Your task to perform on an android device: choose inbox layout in the gmail app Image 0: 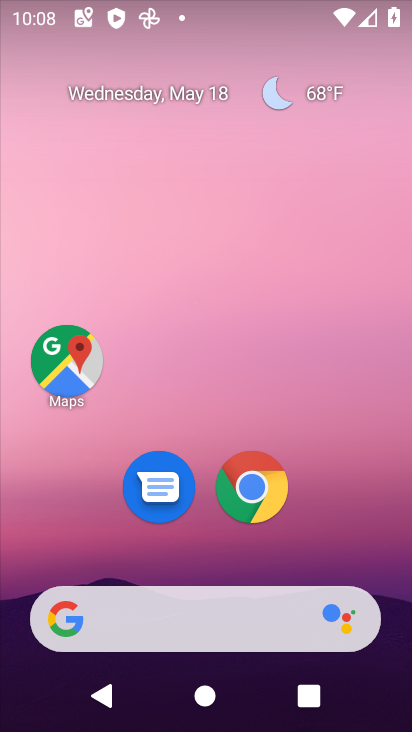
Step 0: drag from (385, 521) to (368, 168)
Your task to perform on an android device: choose inbox layout in the gmail app Image 1: 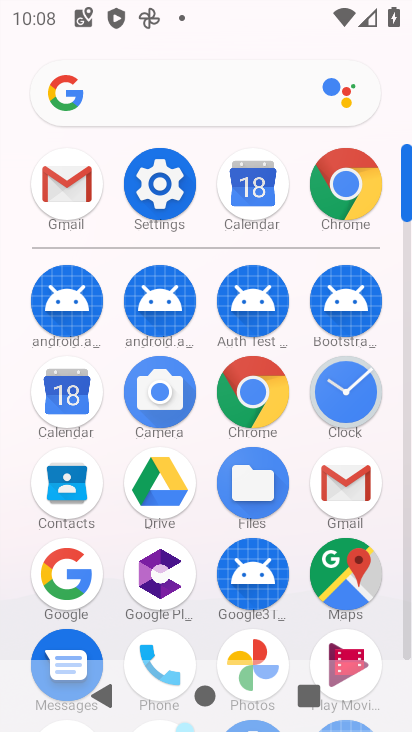
Step 1: click (337, 488)
Your task to perform on an android device: choose inbox layout in the gmail app Image 2: 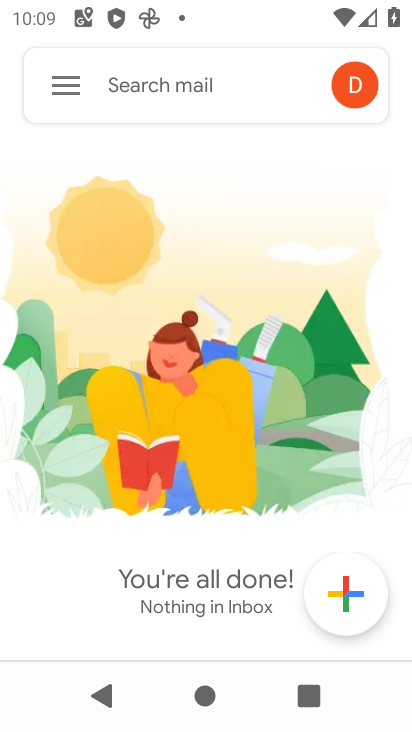
Step 2: click (63, 95)
Your task to perform on an android device: choose inbox layout in the gmail app Image 3: 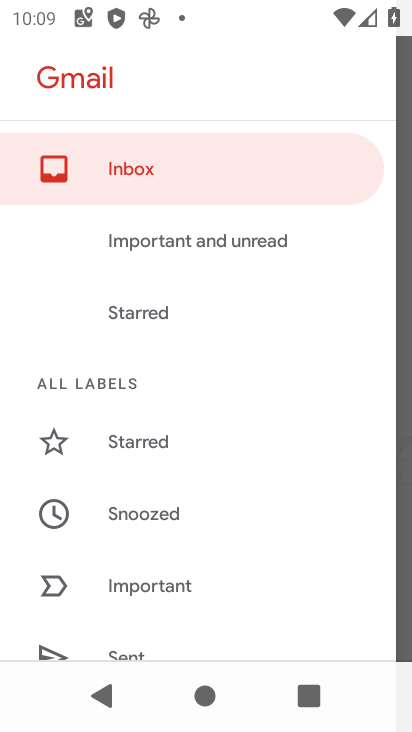
Step 3: drag from (225, 595) to (238, 262)
Your task to perform on an android device: choose inbox layout in the gmail app Image 4: 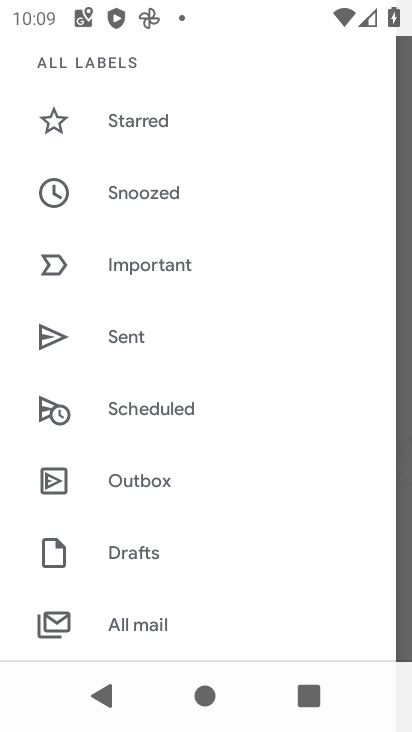
Step 4: drag from (243, 603) to (233, 272)
Your task to perform on an android device: choose inbox layout in the gmail app Image 5: 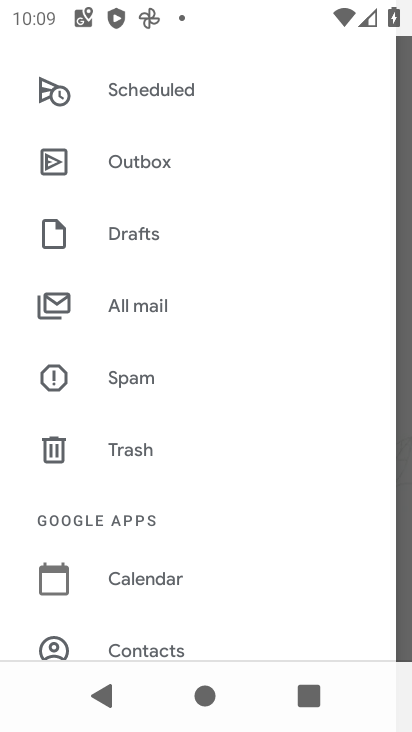
Step 5: drag from (214, 584) to (222, 296)
Your task to perform on an android device: choose inbox layout in the gmail app Image 6: 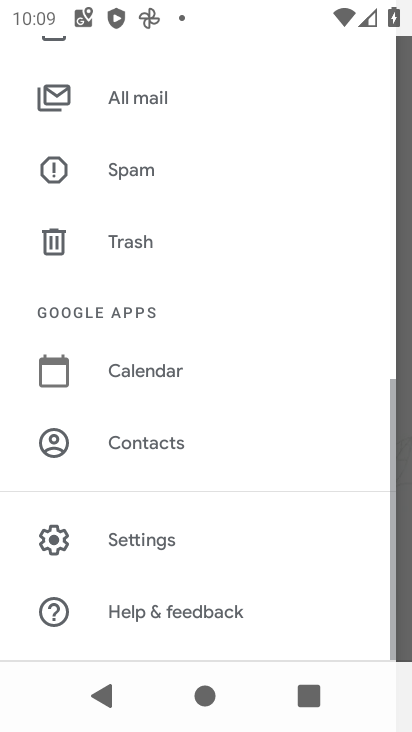
Step 6: drag from (247, 536) to (241, 306)
Your task to perform on an android device: choose inbox layout in the gmail app Image 7: 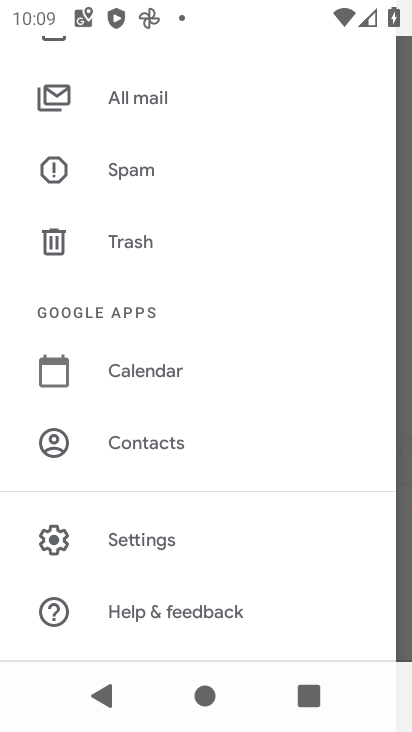
Step 7: click (162, 541)
Your task to perform on an android device: choose inbox layout in the gmail app Image 8: 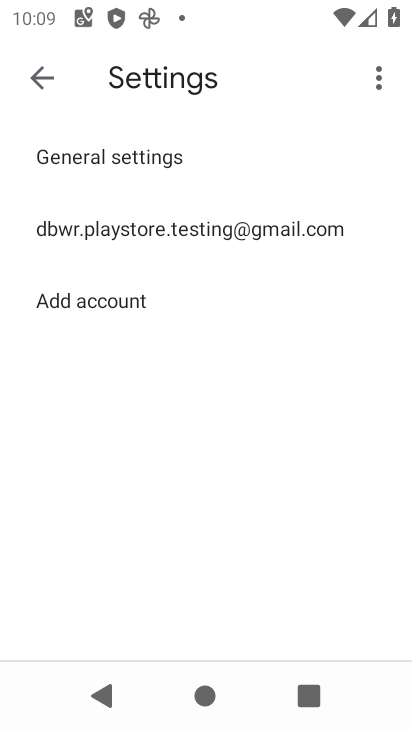
Step 8: click (243, 236)
Your task to perform on an android device: choose inbox layout in the gmail app Image 9: 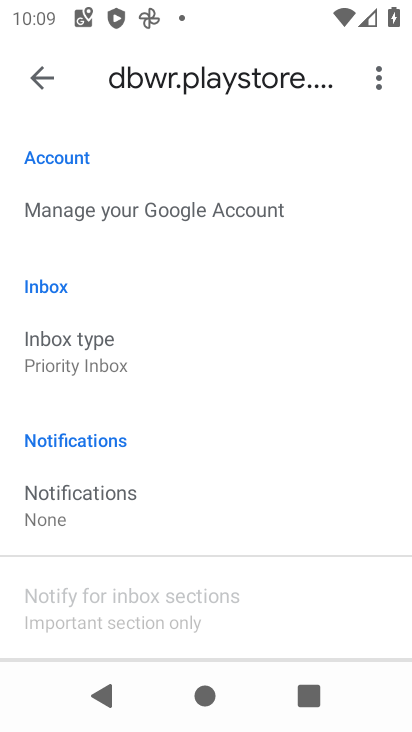
Step 9: drag from (226, 518) to (233, 283)
Your task to perform on an android device: choose inbox layout in the gmail app Image 10: 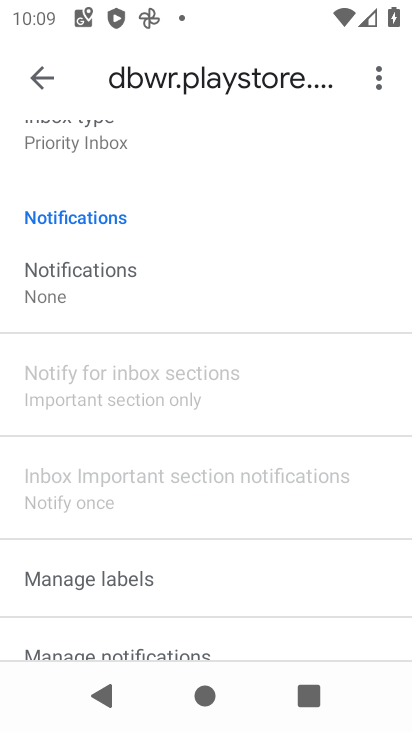
Step 10: drag from (235, 294) to (237, 512)
Your task to perform on an android device: choose inbox layout in the gmail app Image 11: 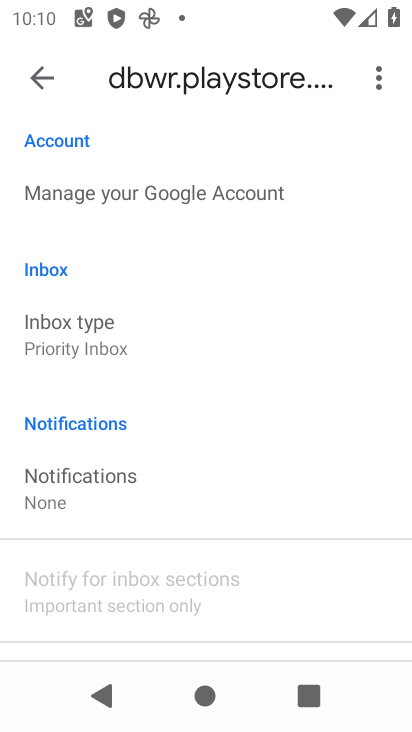
Step 11: click (112, 347)
Your task to perform on an android device: choose inbox layout in the gmail app Image 12: 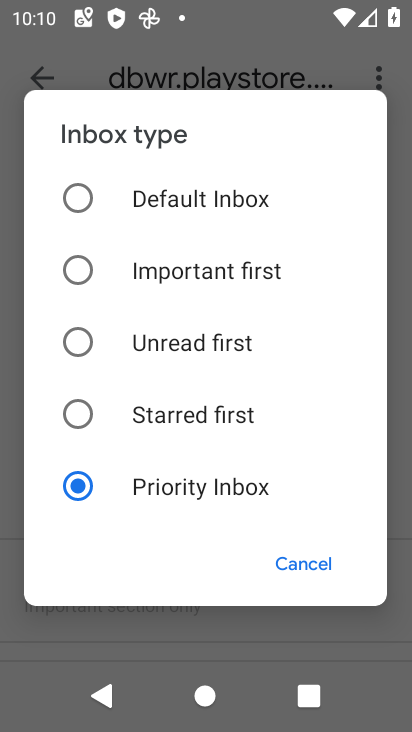
Step 12: click (85, 261)
Your task to perform on an android device: choose inbox layout in the gmail app Image 13: 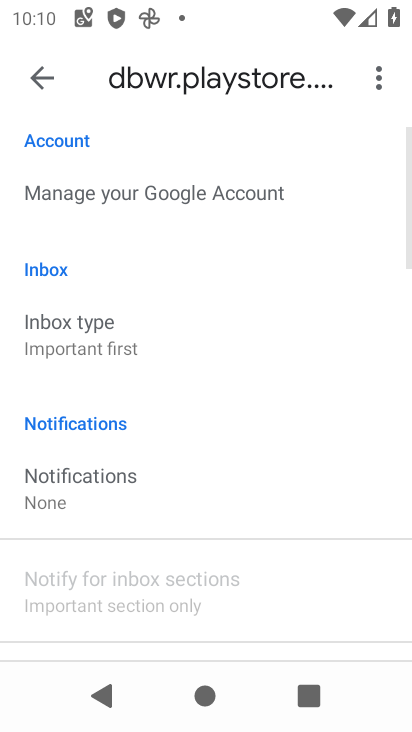
Step 13: task complete